Your task to perform on an android device: toggle javascript in the chrome app Image 0: 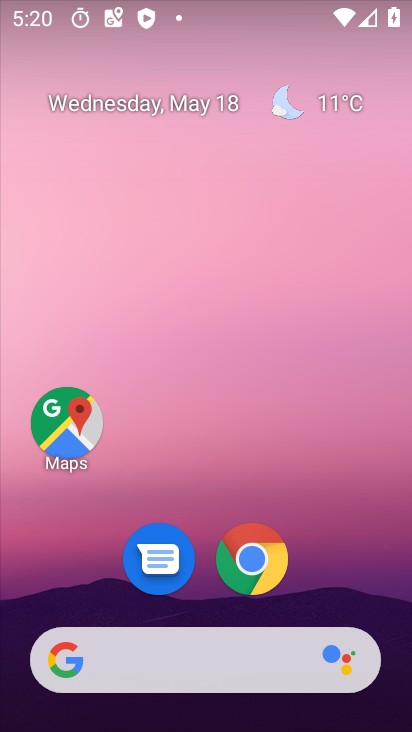
Step 0: click (253, 560)
Your task to perform on an android device: toggle javascript in the chrome app Image 1: 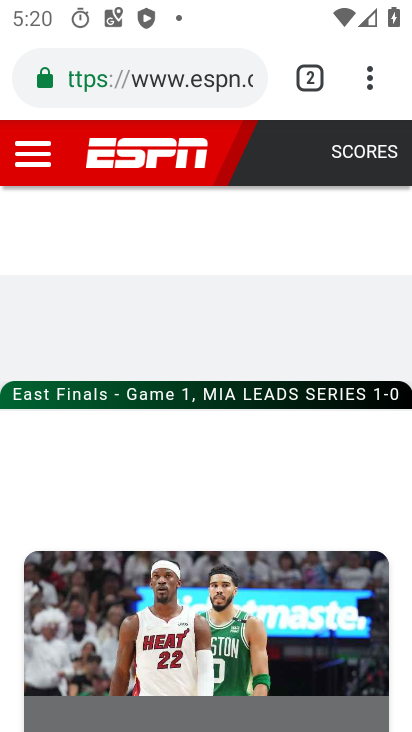
Step 1: drag from (374, 69) to (138, 605)
Your task to perform on an android device: toggle javascript in the chrome app Image 2: 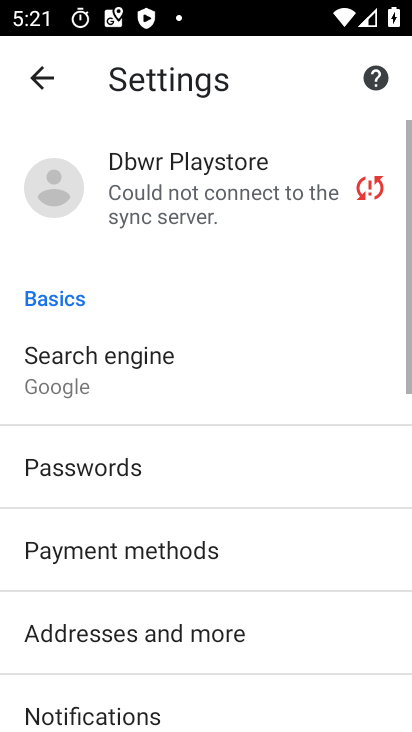
Step 2: drag from (175, 672) to (263, 154)
Your task to perform on an android device: toggle javascript in the chrome app Image 3: 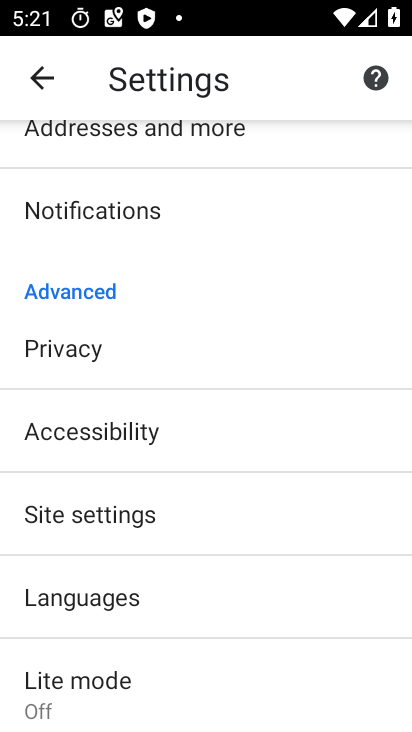
Step 3: click (131, 506)
Your task to perform on an android device: toggle javascript in the chrome app Image 4: 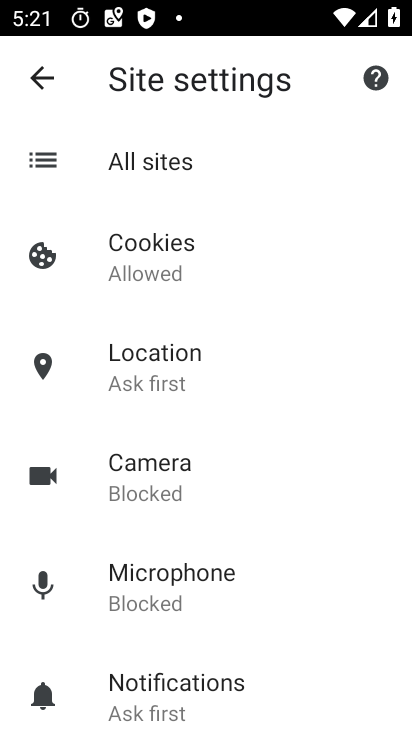
Step 4: drag from (174, 629) to (251, 123)
Your task to perform on an android device: toggle javascript in the chrome app Image 5: 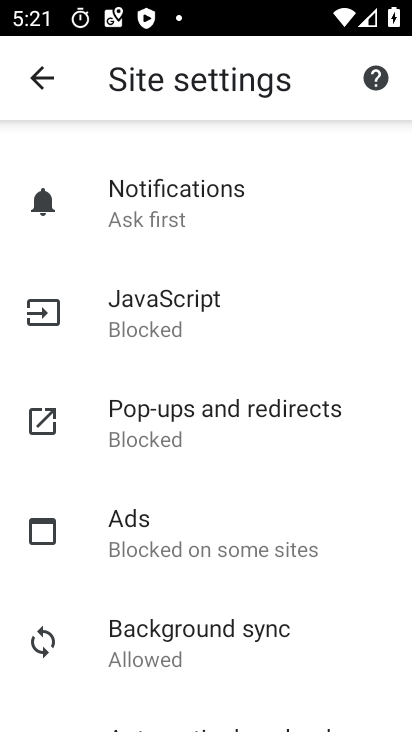
Step 5: click (143, 331)
Your task to perform on an android device: toggle javascript in the chrome app Image 6: 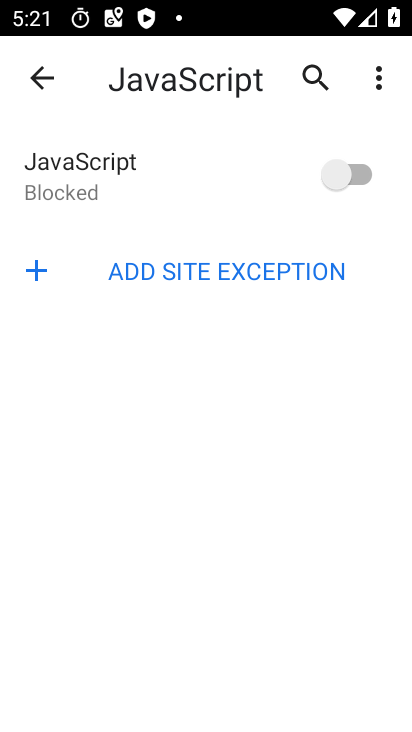
Step 6: click (350, 172)
Your task to perform on an android device: toggle javascript in the chrome app Image 7: 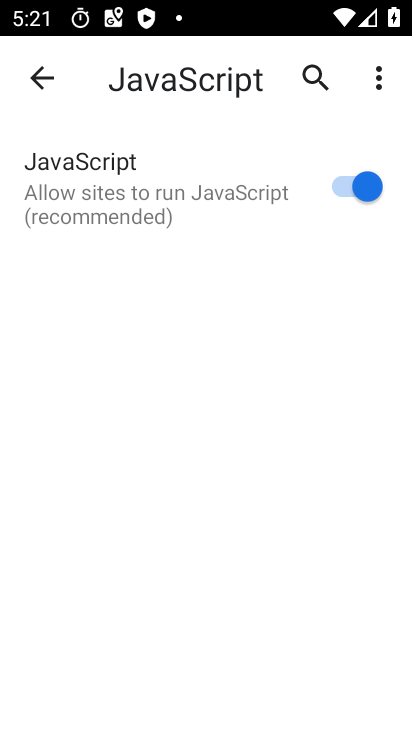
Step 7: task complete